Your task to perform on an android device: Go to network settings Image 0: 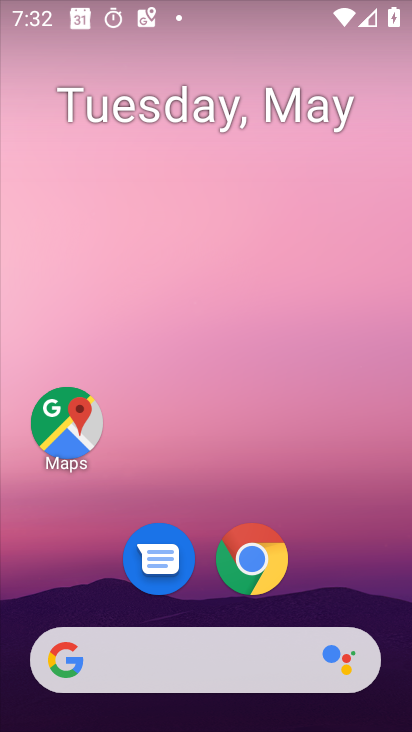
Step 0: drag from (383, 599) to (316, 36)
Your task to perform on an android device: Go to network settings Image 1: 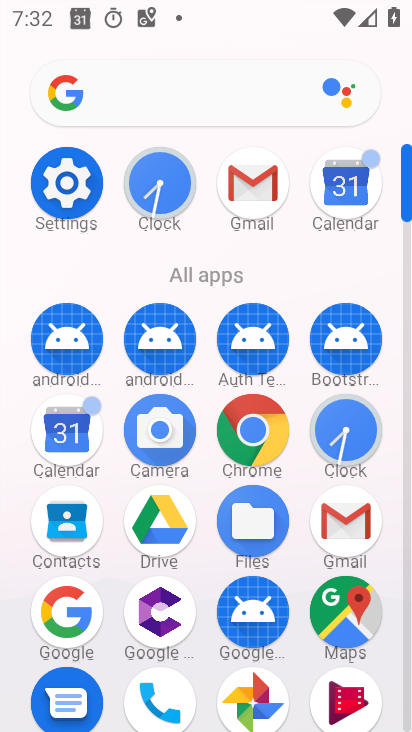
Step 1: click (76, 200)
Your task to perform on an android device: Go to network settings Image 2: 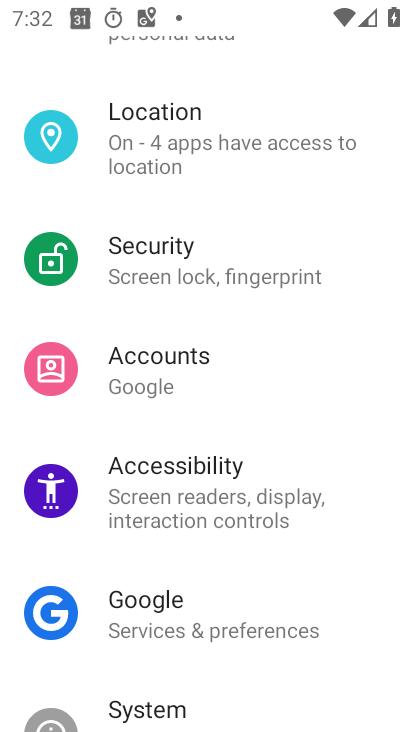
Step 2: drag from (183, 169) to (207, 661)
Your task to perform on an android device: Go to network settings Image 3: 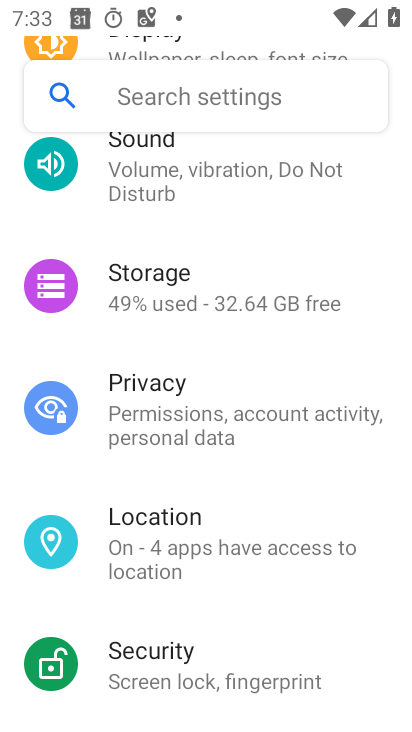
Step 3: drag from (144, 232) to (204, 643)
Your task to perform on an android device: Go to network settings Image 4: 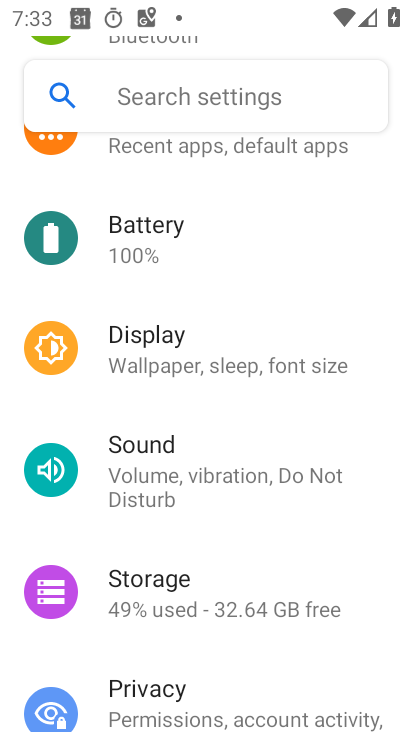
Step 4: drag from (176, 197) to (242, 608)
Your task to perform on an android device: Go to network settings Image 5: 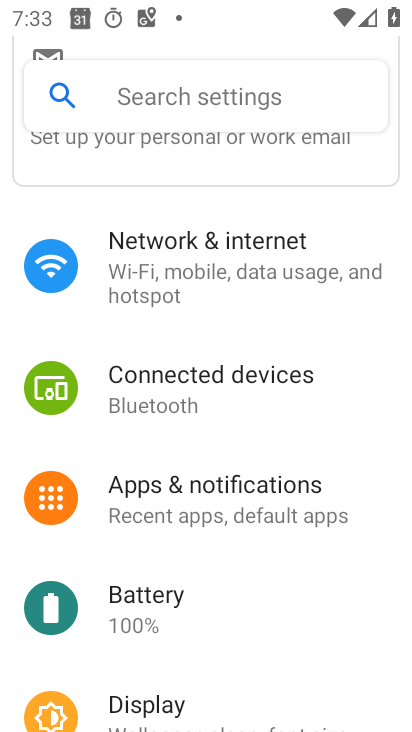
Step 5: click (213, 297)
Your task to perform on an android device: Go to network settings Image 6: 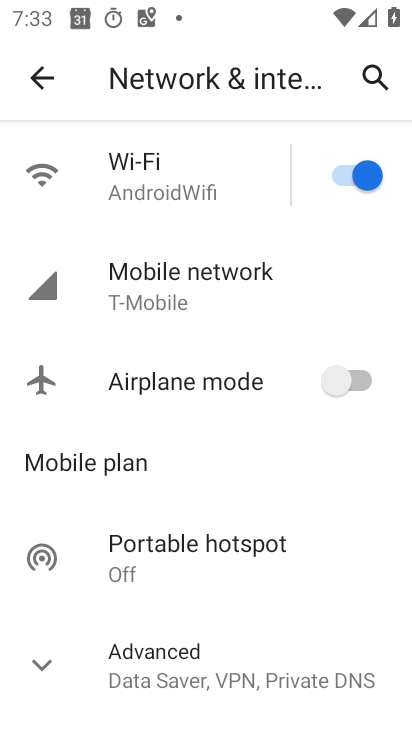
Step 6: task complete